Your task to perform on an android device: toggle javascript in the chrome app Image 0: 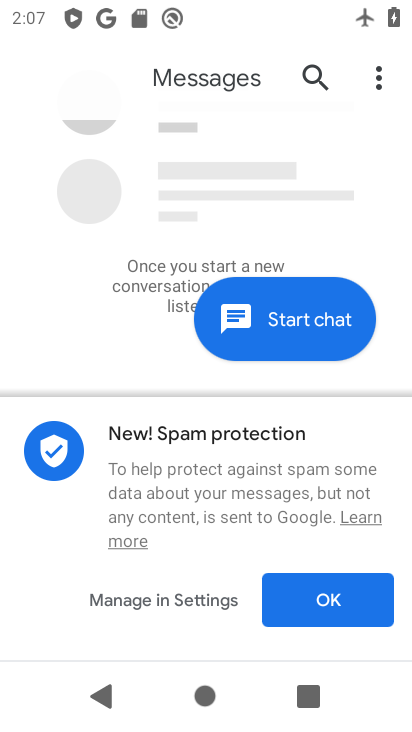
Step 0: press back button
Your task to perform on an android device: toggle javascript in the chrome app Image 1: 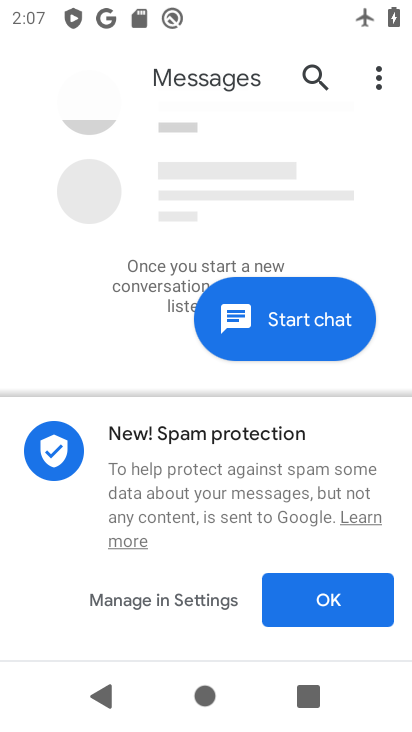
Step 1: press back button
Your task to perform on an android device: toggle javascript in the chrome app Image 2: 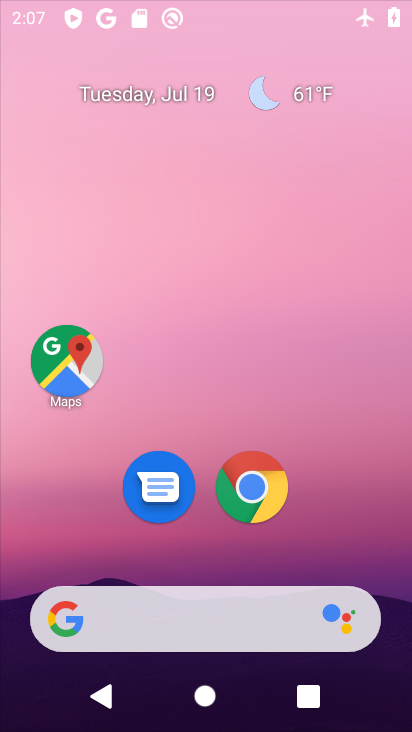
Step 2: drag from (203, 585) to (260, 99)
Your task to perform on an android device: toggle javascript in the chrome app Image 3: 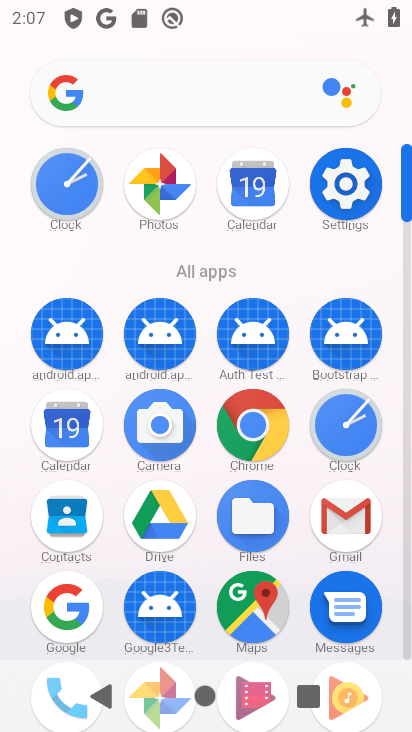
Step 3: click (257, 450)
Your task to perform on an android device: toggle javascript in the chrome app Image 4: 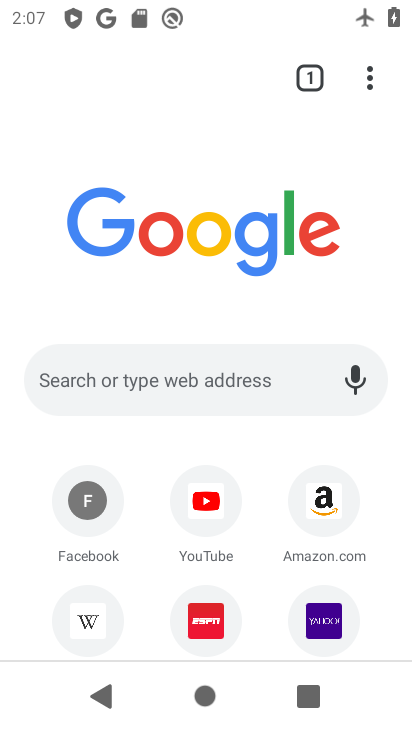
Step 4: click (366, 79)
Your task to perform on an android device: toggle javascript in the chrome app Image 5: 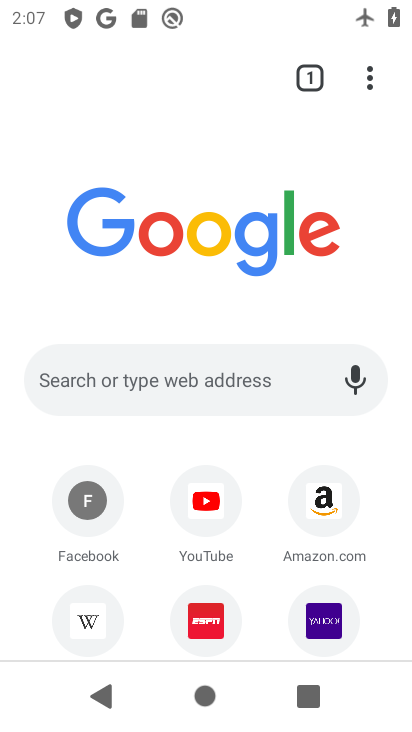
Step 5: drag from (366, 79) to (119, 533)
Your task to perform on an android device: toggle javascript in the chrome app Image 6: 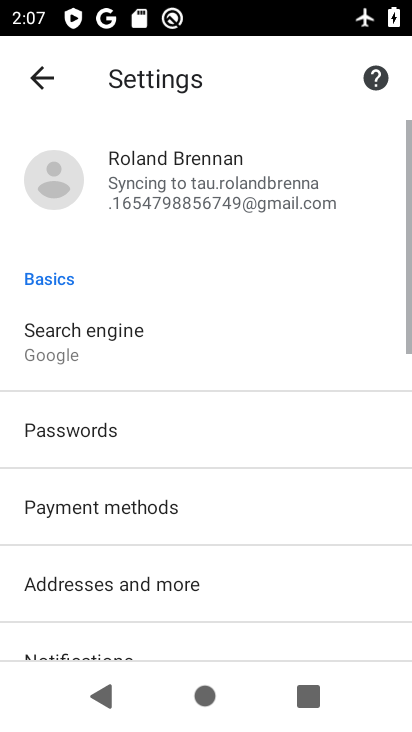
Step 6: drag from (97, 602) to (189, 137)
Your task to perform on an android device: toggle javascript in the chrome app Image 7: 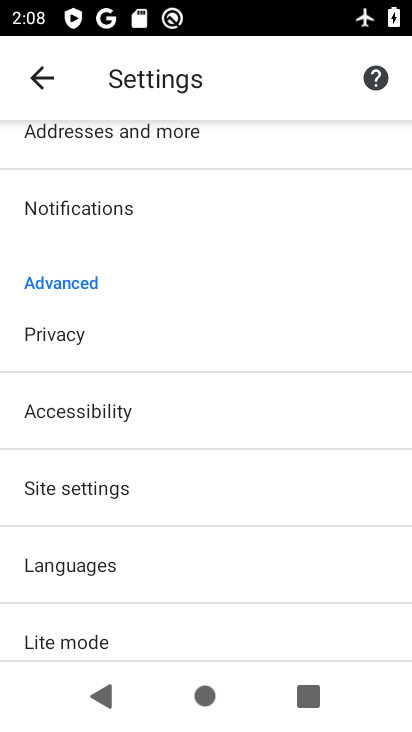
Step 7: click (69, 466)
Your task to perform on an android device: toggle javascript in the chrome app Image 8: 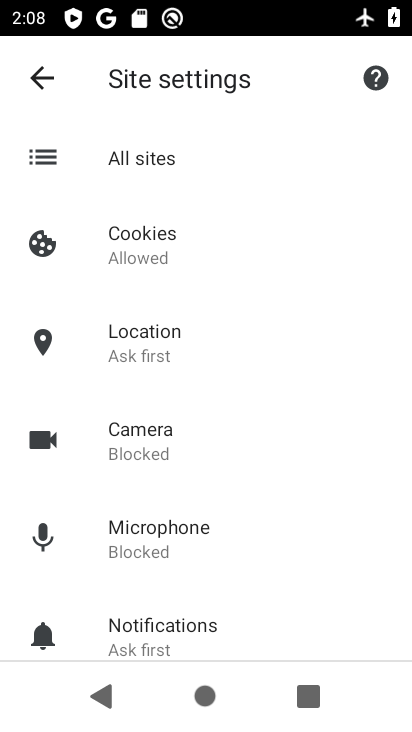
Step 8: drag from (154, 609) to (291, 113)
Your task to perform on an android device: toggle javascript in the chrome app Image 9: 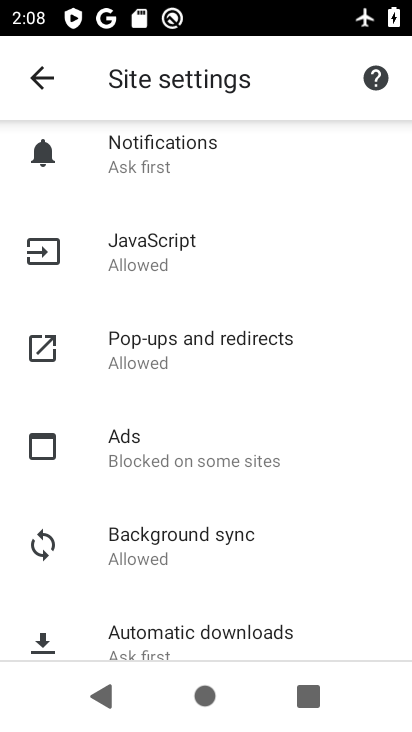
Step 9: click (149, 250)
Your task to perform on an android device: toggle javascript in the chrome app Image 10: 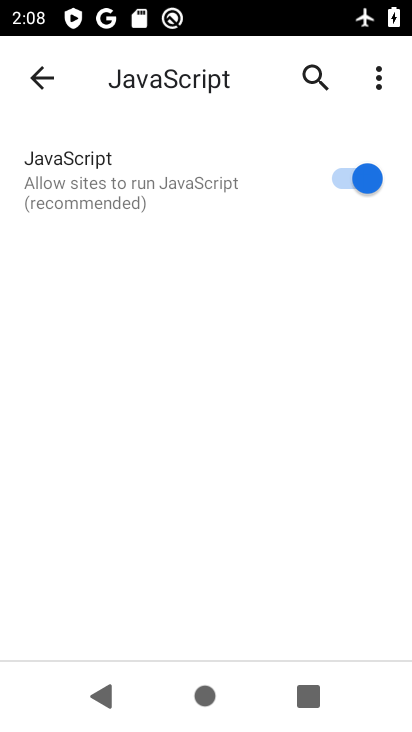
Step 10: click (364, 165)
Your task to perform on an android device: toggle javascript in the chrome app Image 11: 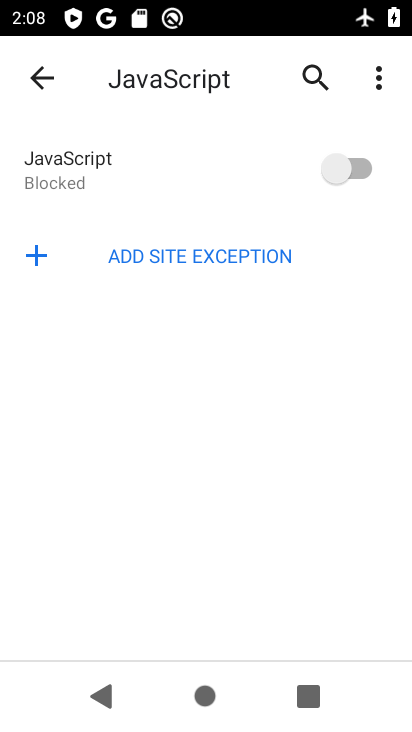
Step 11: task complete